Your task to perform on an android device: see creations saved in the google photos Image 0: 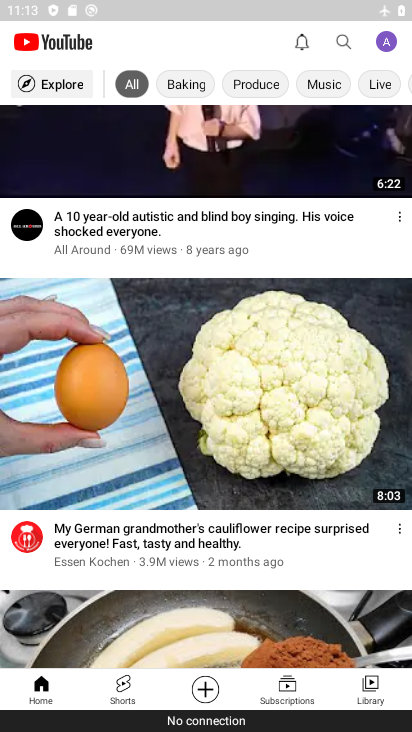
Step 0: press home button
Your task to perform on an android device: see creations saved in the google photos Image 1: 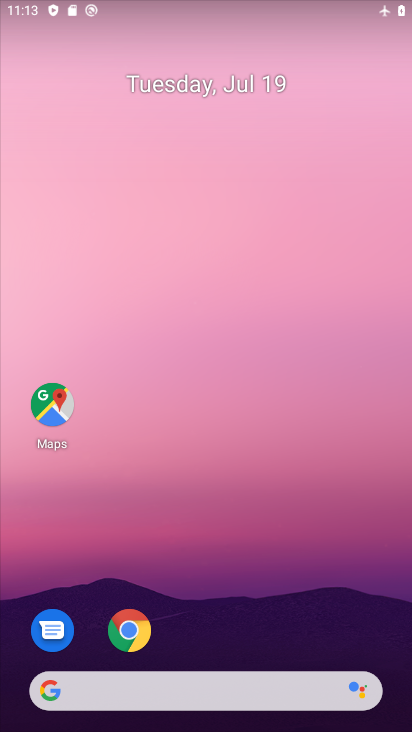
Step 1: drag from (237, 628) to (179, 59)
Your task to perform on an android device: see creations saved in the google photos Image 2: 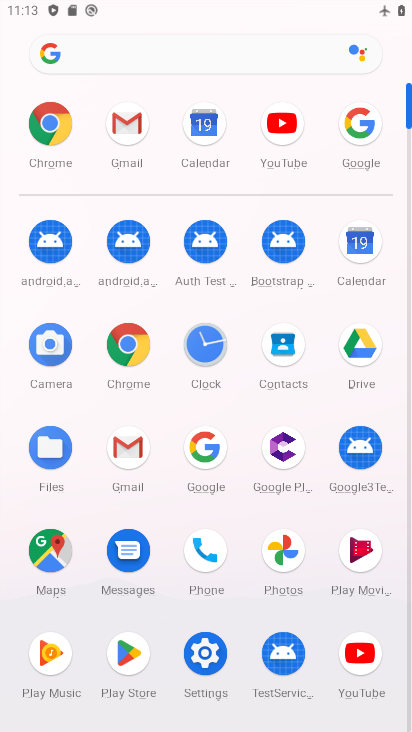
Step 2: click (297, 558)
Your task to perform on an android device: see creations saved in the google photos Image 3: 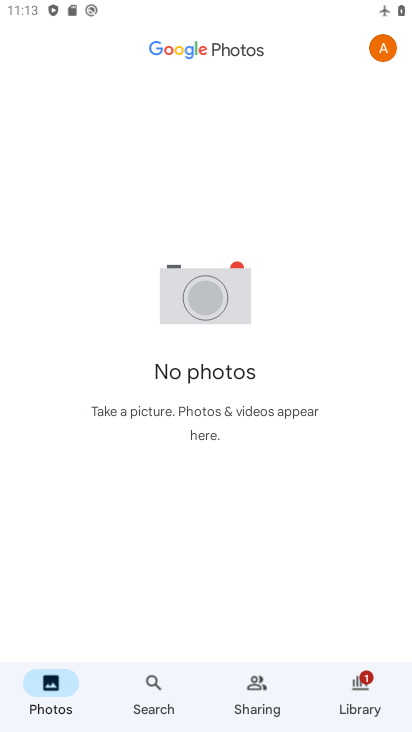
Step 3: click (253, 691)
Your task to perform on an android device: see creations saved in the google photos Image 4: 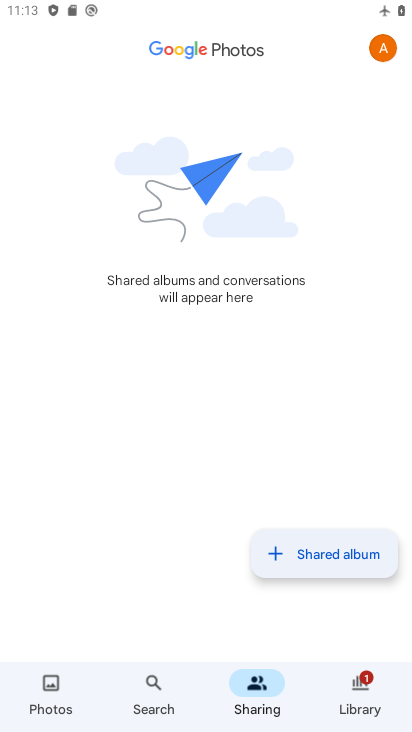
Step 4: click (366, 688)
Your task to perform on an android device: see creations saved in the google photos Image 5: 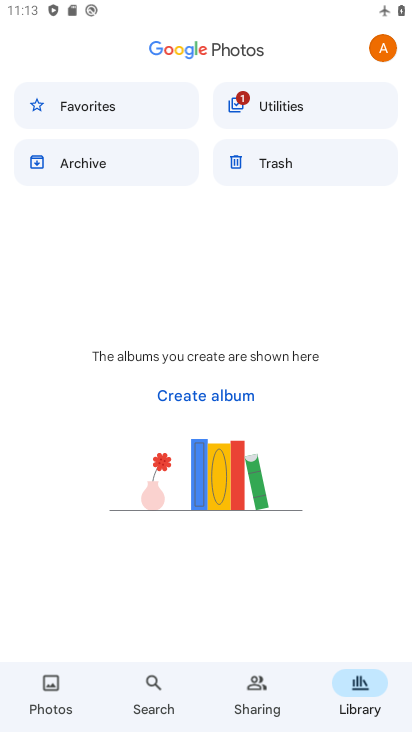
Step 5: click (67, 108)
Your task to perform on an android device: see creations saved in the google photos Image 6: 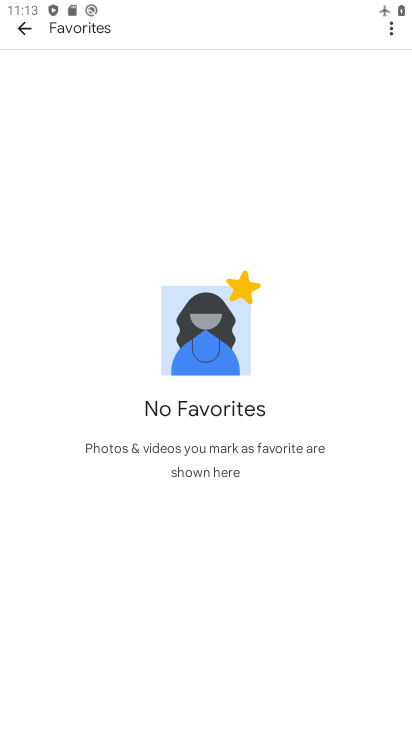
Step 6: click (15, 22)
Your task to perform on an android device: see creations saved in the google photos Image 7: 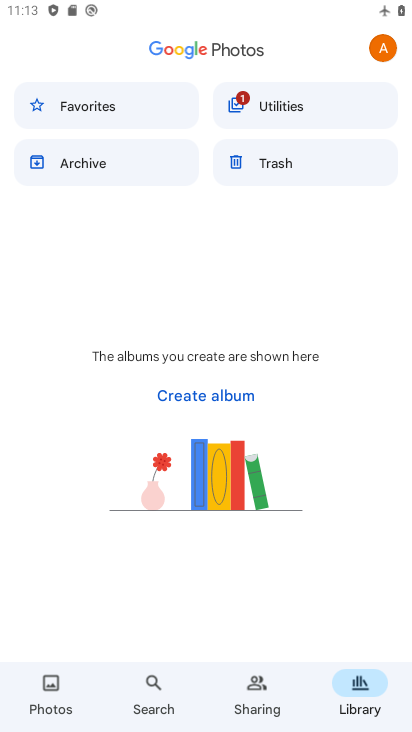
Step 7: task complete